Your task to perform on an android device: toggle notification dots Image 0: 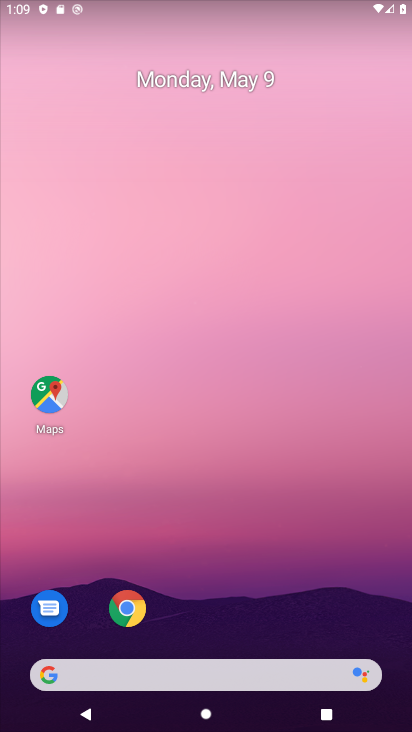
Step 0: drag from (239, 617) to (237, 97)
Your task to perform on an android device: toggle notification dots Image 1: 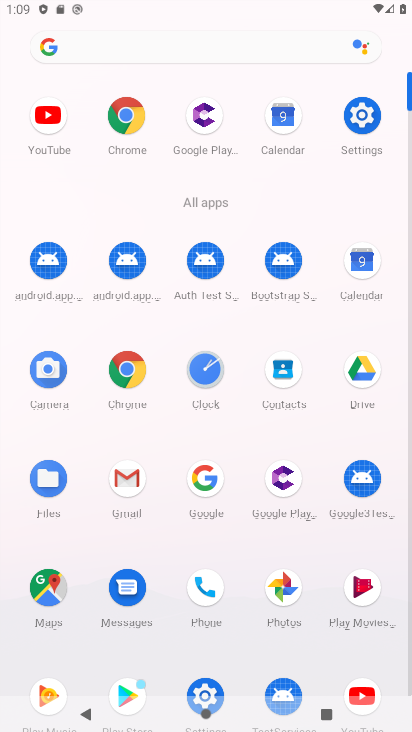
Step 1: click (374, 120)
Your task to perform on an android device: toggle notification dots Image 2: 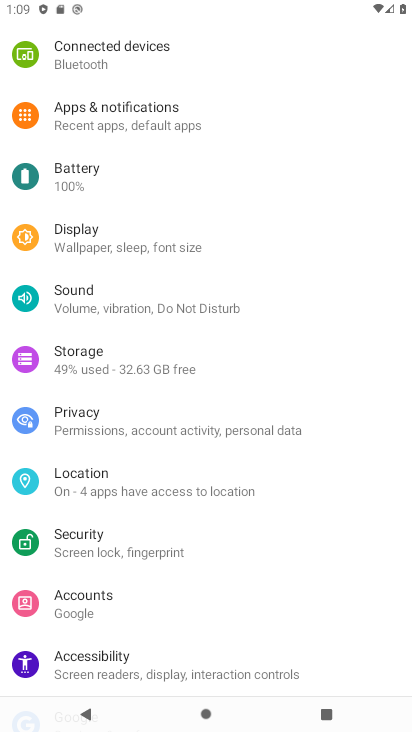
Step 2: click (95, 132)
Your task to perform on an android device: toggle notification dots Image 3: 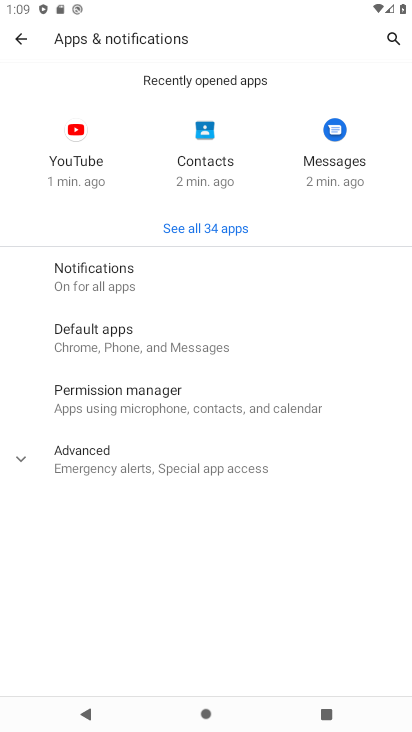
Step 3: click (161, 288)
Your task to perform on an android device: toggle notification dots Image 4: 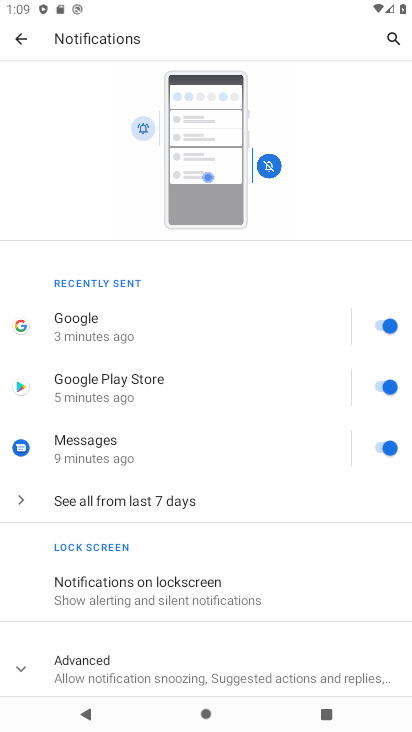
Step 4: click (121, 658)
Your task to perform on an android device: toggle notification dots Image 5: 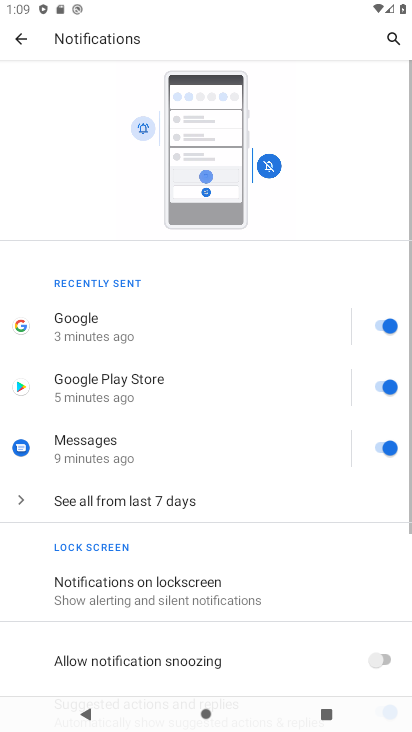
Step 5: drag from (121, 658) to (158, 318)
Your task to perform on an android device: toggle notification dots Image 6: 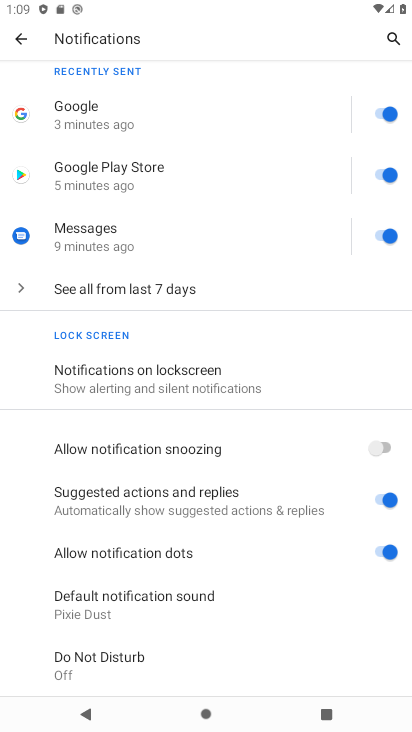
Step 6: click (195, 556)
Your task to perform on an android device: toggle notification dots Image 7: 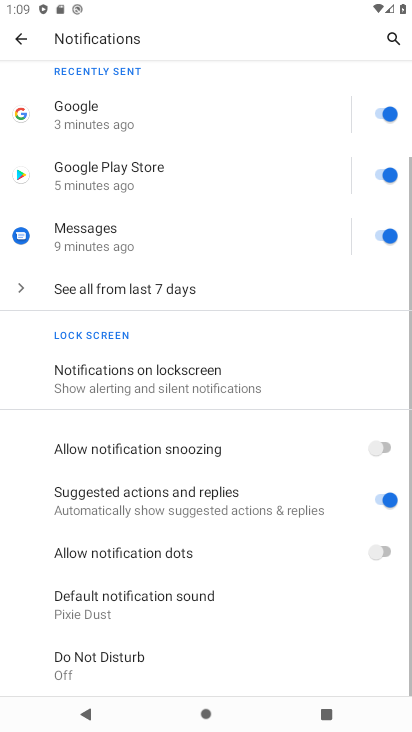
Step 7: task complete